Your task to perform on an android device: delete location history Image 0: 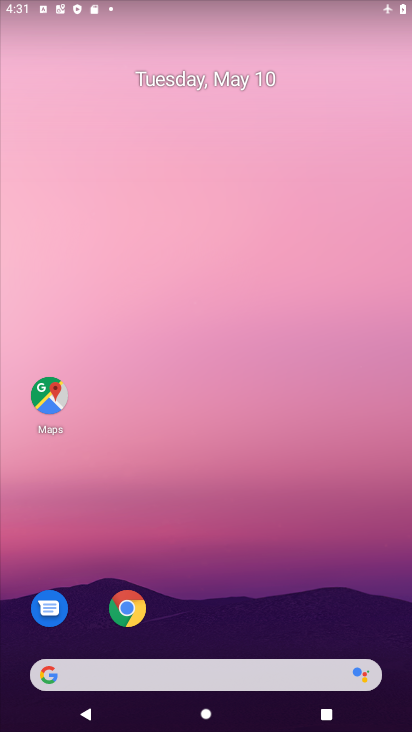
Step 0: click (46, 396)
Your task to perform on an android device: delete location history Image 1: 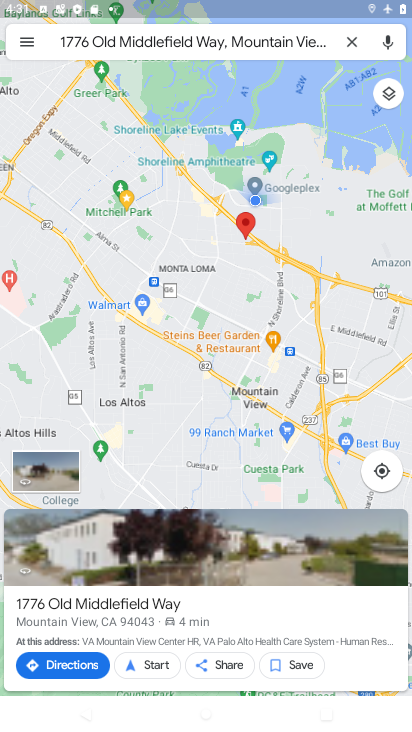
Step 1: click (29, 40)
Your task to perform on an android device: delete location history Image 2: 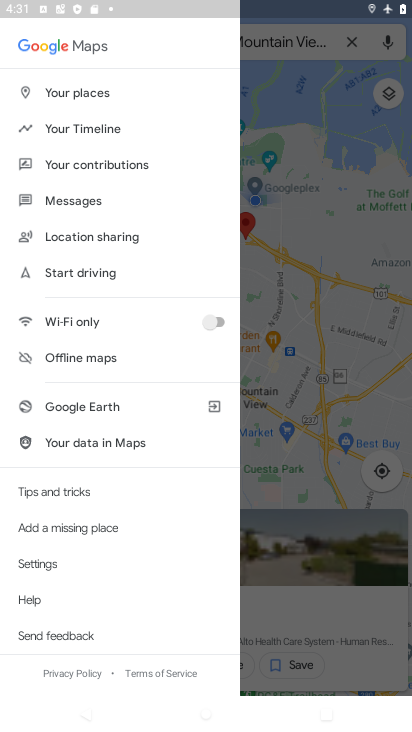
Step 2: click (52, 569)
Your task to perform on an android device: delete location history Image 3: 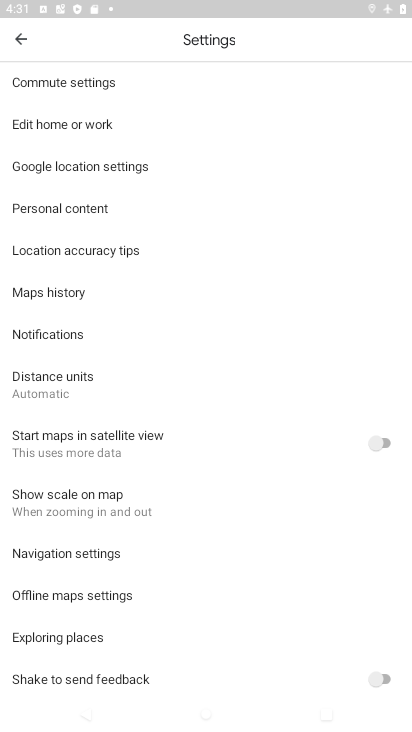
Step 3: click (62, 206)
Your task to perform on an android device: delete location history Image 4: 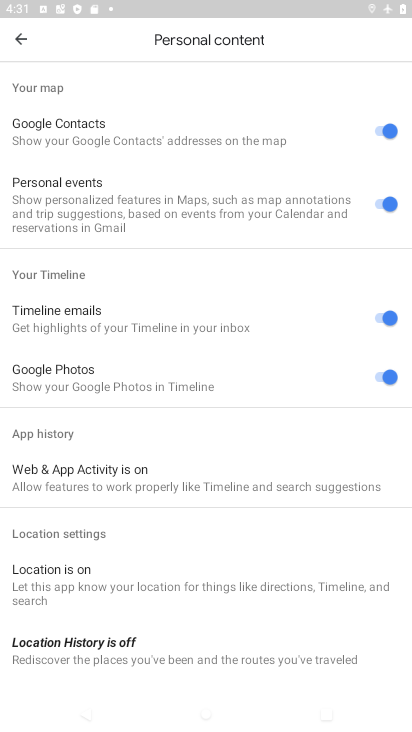
Step 4: drag from (104, 609) to (202, 176)
Your task to perform on an android device: delete location history Image 5: 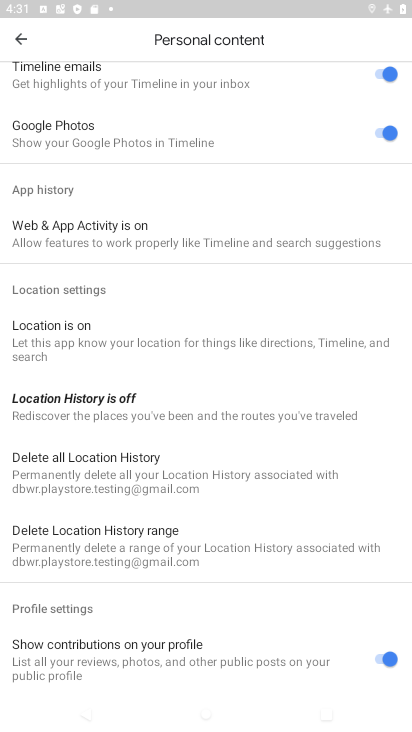
Step 5: click (109, 461)
Your task to perform on an android device: delete location history Image 6: 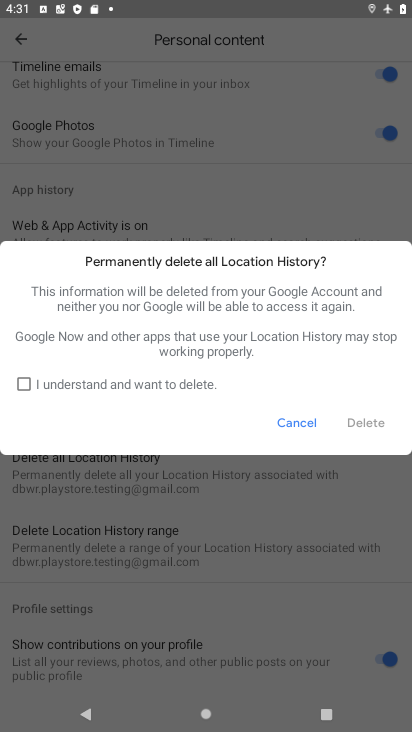
Step 6: click (22, 383)
Your task to perform on an android device: delete location history Image 7: 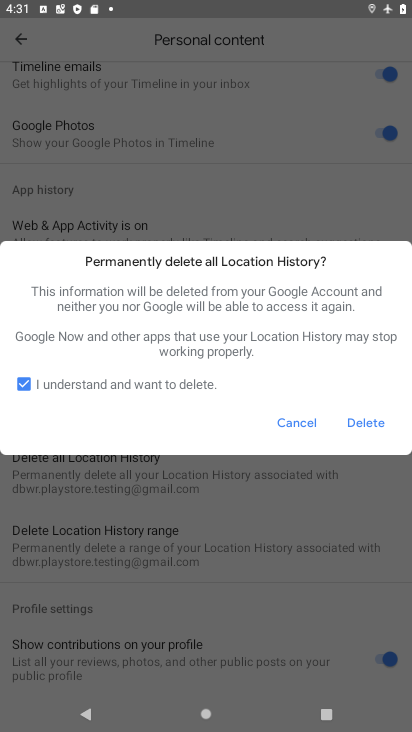
Step 7: click (359, 421)
Your task to perform on an android device: delete location history Image 8: 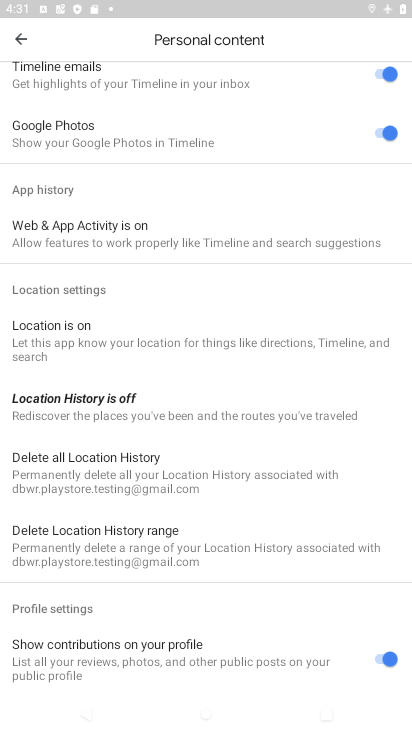
Step 8: task complete